Your task to perform on an android device: toggle improve location accuracy Image 0: 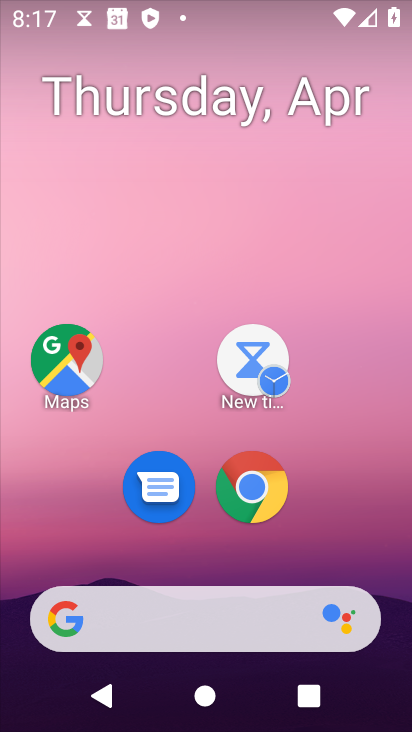
Step 0: drag from (330, 410) to (320, 150)
Your task to perform on an android device: toggle improve location accuracy Image 1: 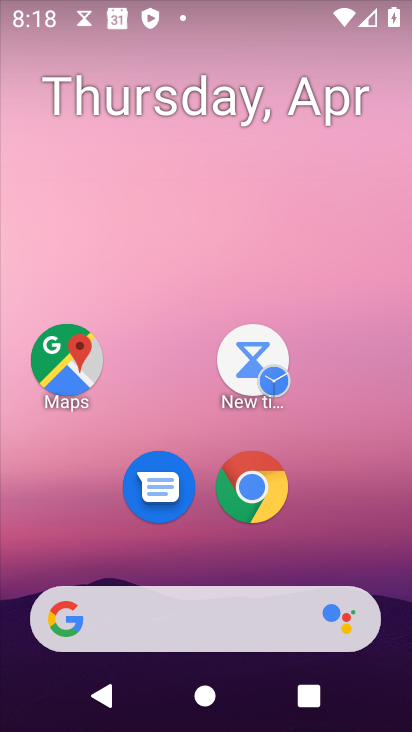
Step 1: drag from (337, 449) to (321, 60)
Your task to perform on an android device: toggle improve location accuracy Image 2: 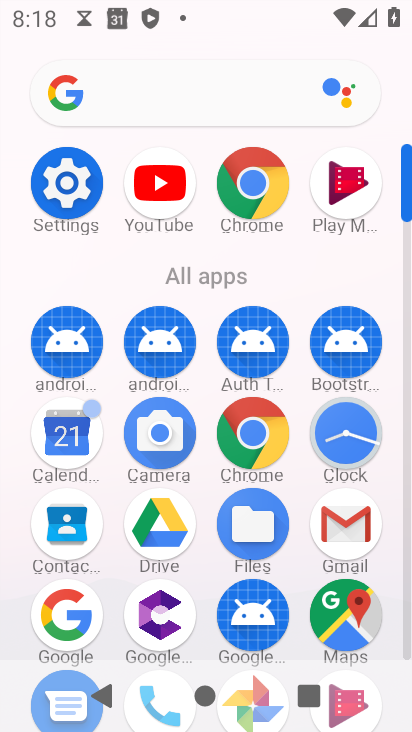
Step 2: click (66, 184)
Your task to perform on an android device: toggle improve location accuracy Image 3: 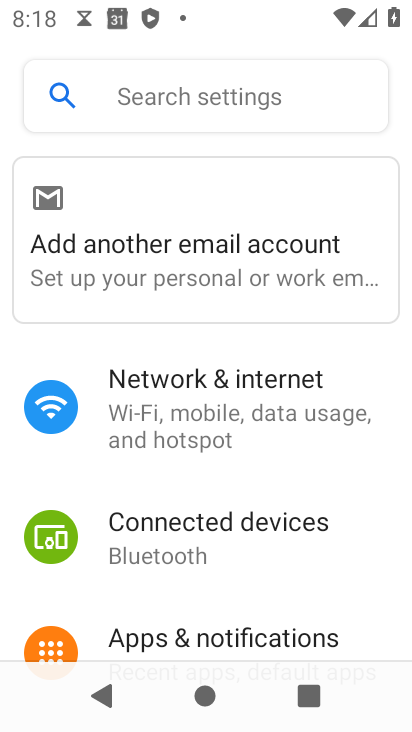
Step 3: drag from (376, 607) to (359, 138)
Your task to perform on an android device: toggle improve location accuracy Image 4: 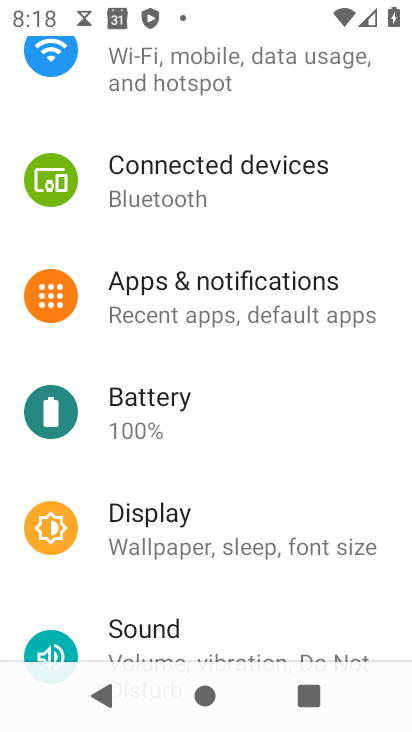
Step 4: drag from (325, 574) to (349, 183)
Your task to perform on an android device: toggle improve location accuracy Image 5: 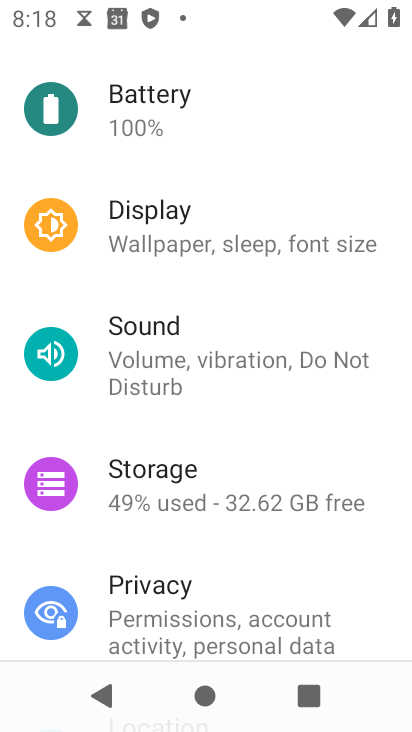
Step 5: drag from (316, 609) to (332, 241)
Your task to perform on an android device: toggle improve location accuracy Image 6: 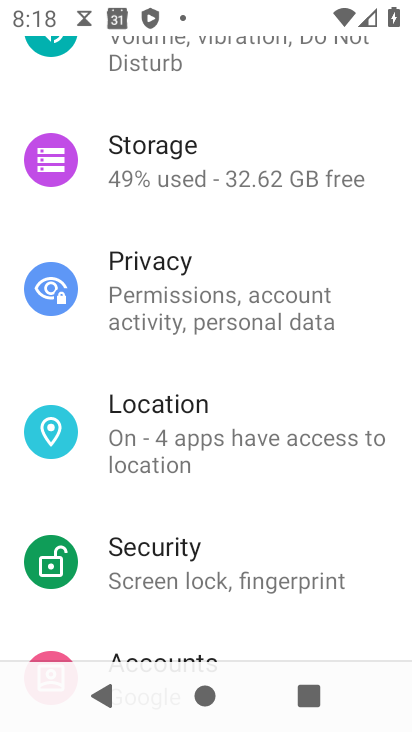
Step 6: click (154, 443)
Your task to perform on an android device: toggle improve location accuracy Image 7: 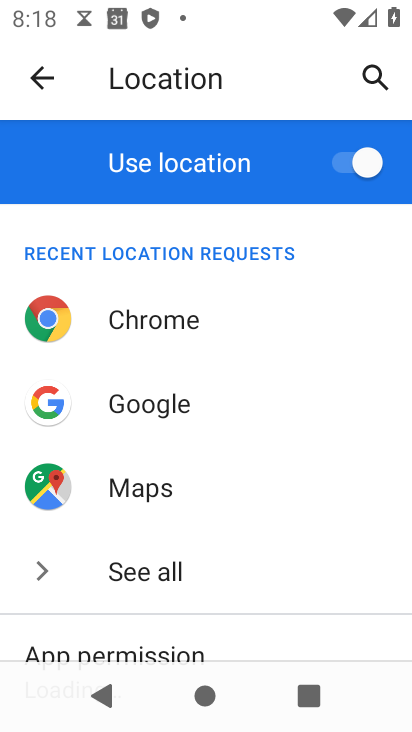
Step 7: drag from (358, 562) to (342, 210)
Your task to perform on an android device: toggle improve location accuracy Image 8: 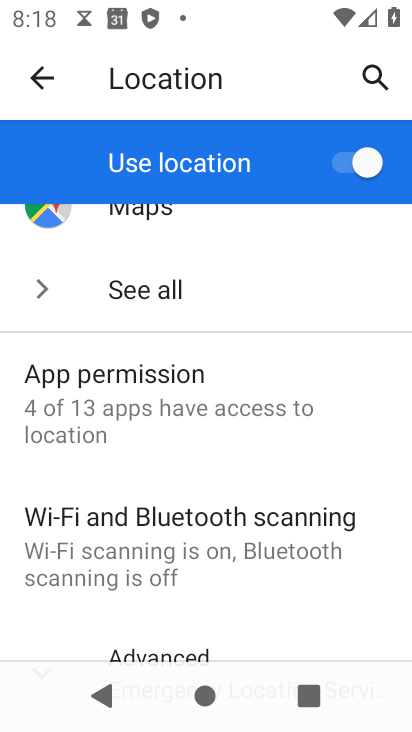
Step 8: drag from (205, 592) to (243, 296)
Your task to perform on an android device: toggle improve location accuracy Image 9: 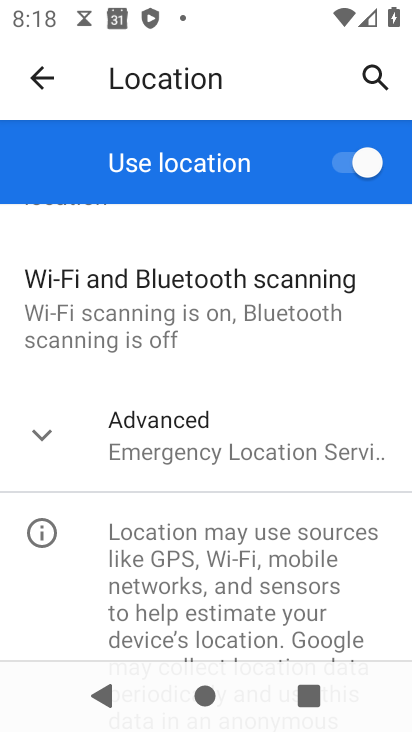
Step 9: click (154, 427)
Your task to perform on an android device: toggle improve location accuracy Image 10: 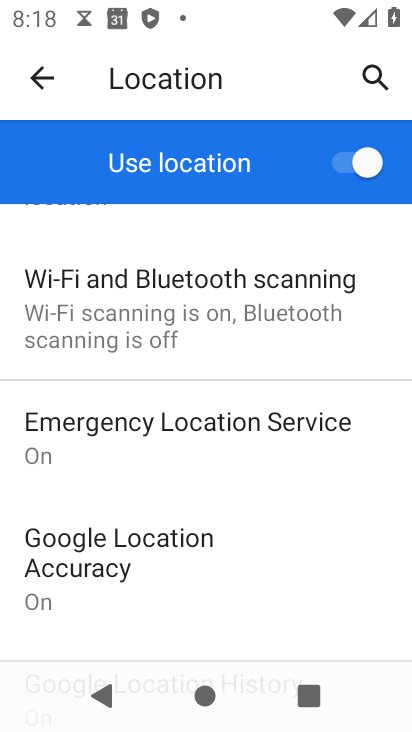
Step 10: click (124, 566)
Your task to perform on an android device: toggle improve location accuracy Image 11: 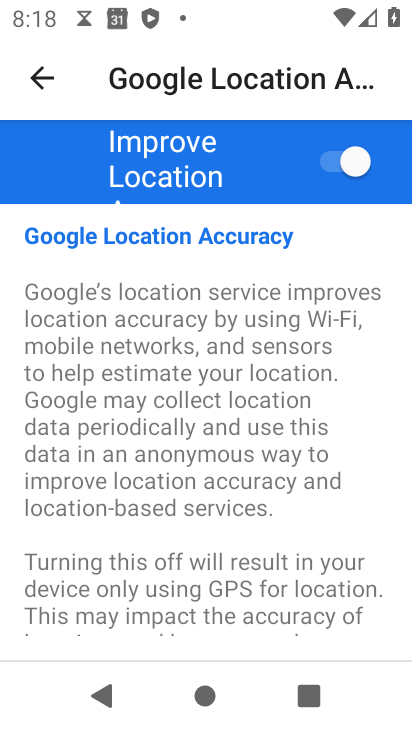
Step 11: click (360, 166)
Your task to perform on an android device: toggle improve location accuracy Image 12: 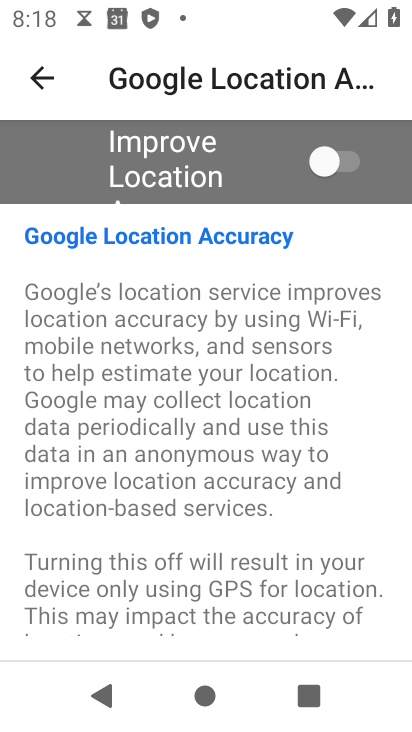
Step 12: task complete